Your task to perform on an android device: turn on sleep mode Image 0: 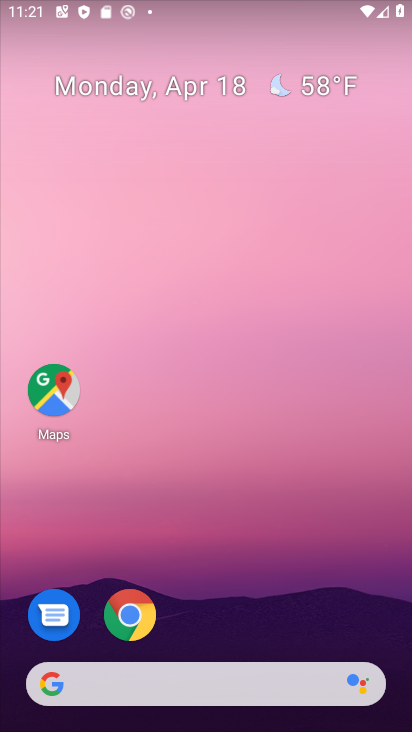
Step 0: drag from (384, 581) to (352, 112)
Your task to perform on an android device: turn on sleep mode Image 1: 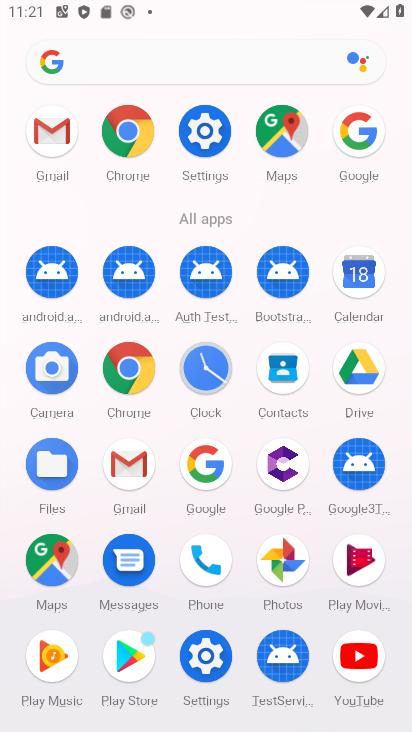
Step 1: click (204, 138)
Your task to perform on an android device: turn on sleep mode Image 2: 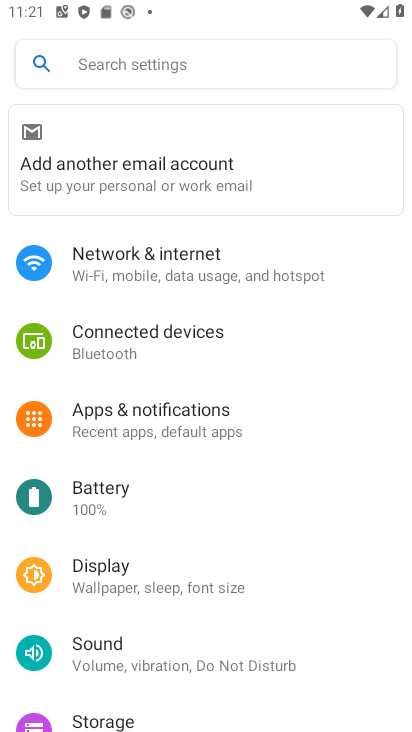
Step 2: drag from (347, 508) to (347, 312)
Your task to perform on an android device: turn on sleep mode Image 3: 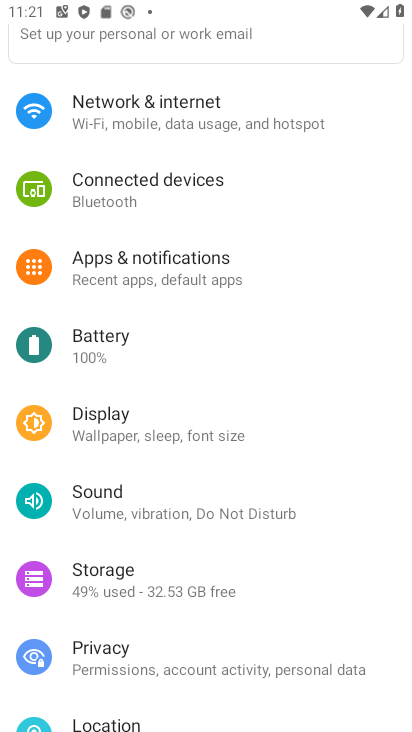
Step 3: drag from (368, 556) to (367, 409)
Your task to perform on an android device: turn on sleep mode Image 4: 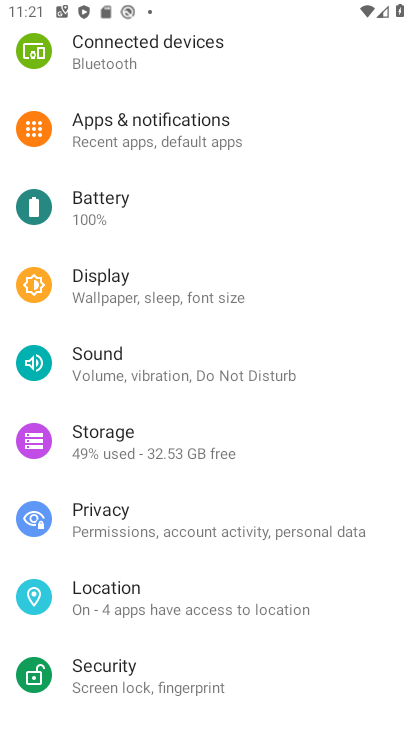
Step 4: drag from (379, 573) to (378, 358)
Your task to perform on an android device: turn on sleep mode Image 5: 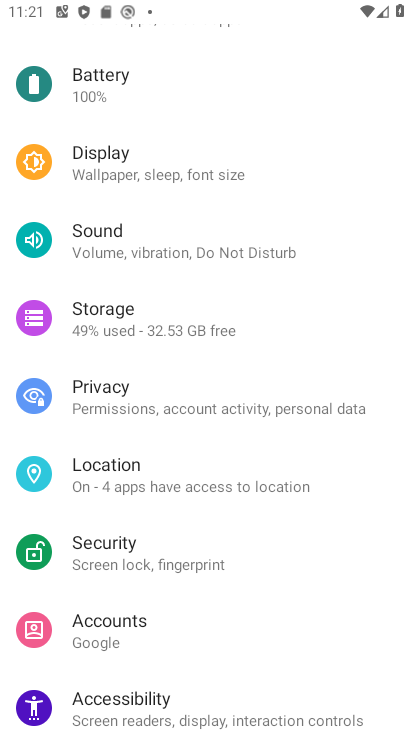
Step 5: drag from (376, 563) to (401, 283)
Your task to perform on an android device: turn on sleep mode Image 6: 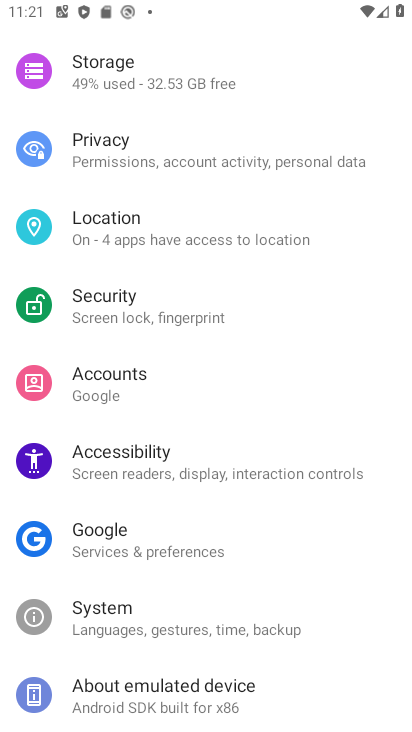
Step 6: drag from (354, 560) to (375, 467)
Your task to perform on an android device: turn on sleep mode Image 7: 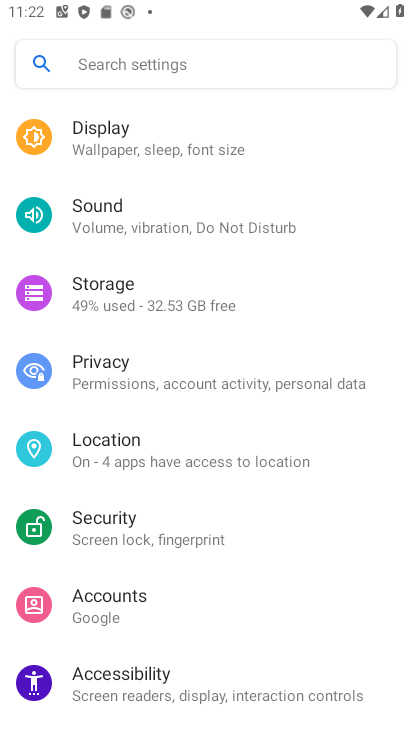
Step 7: drag from (375, 342) to (353, 494)
Your task to perform on an android device: turn on sleep mode Image 8: 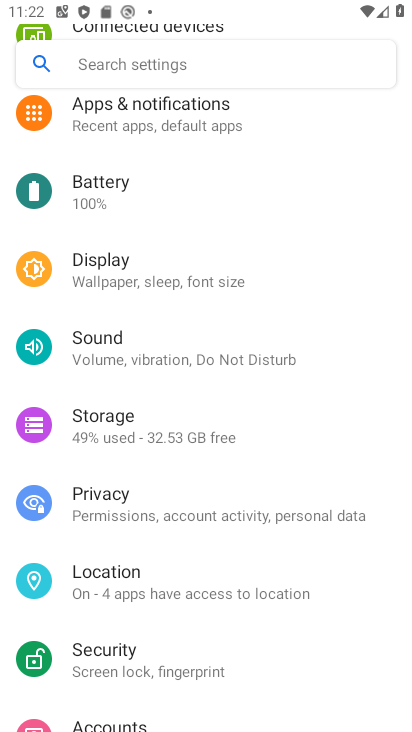
Step 8: click (179, 273)
Your task to perform on an android device: turn on sleep mode Image 9: 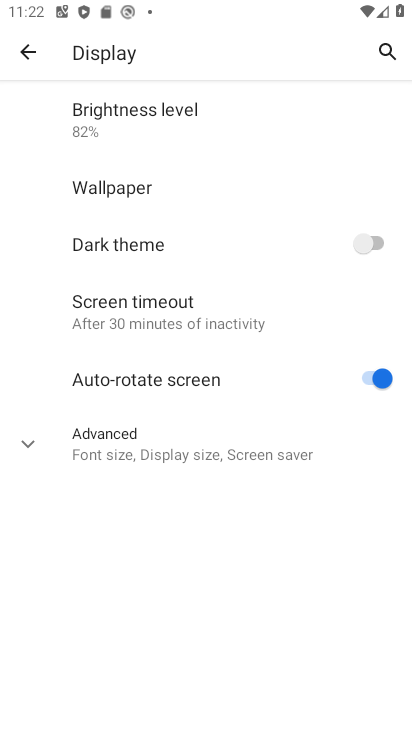
Step 9: click (200, 443)
Your task to perform on an android device: turn on sleep mode Image 10: 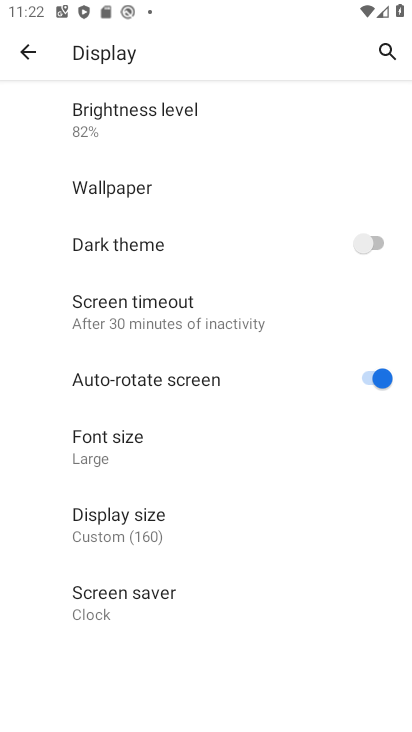
Step 10: task complete